Your task to perform on an android device: delete browsing data in the chrome app Image 0: 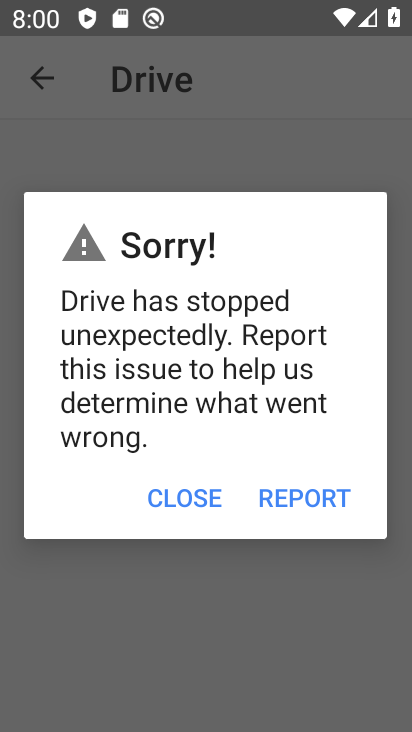
Step 0: press home button
Your task to perform on an android device: delete browsing data in the chrome app Image 1: 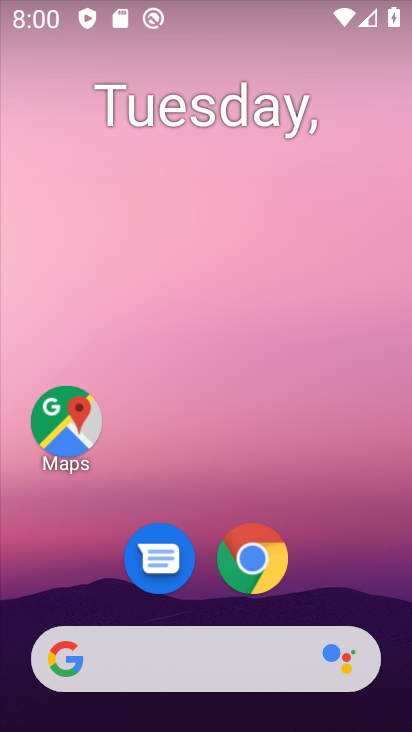
Step 1: click (244, 561)
Your task to perform on an android device: delete browsing data in the chrome app Image 2: 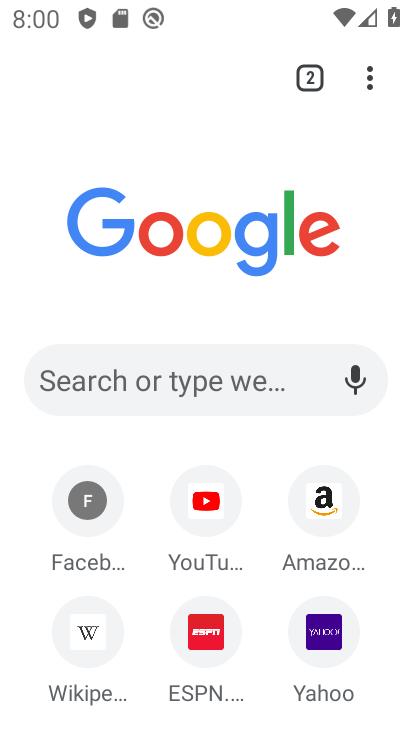
Step 2: click (369, 83)
Your task to perform on an android device: delete browsing data in the chrome app Image 3: 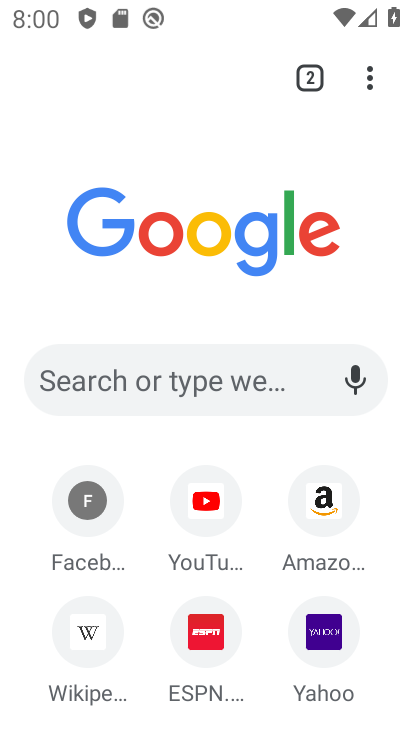
Step 3: drag from (362, 83) to (103, 450)
Your task to perform on an android device: delete browsing data in the chrome app Image 4: 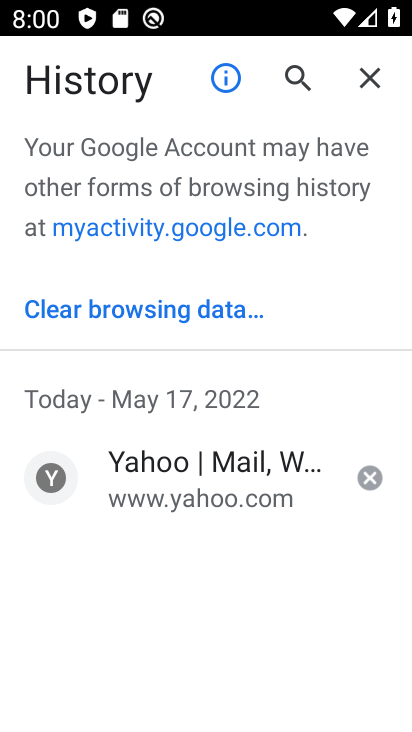
Step 4: click (108, 326)
Your task to perform on an android device: delete browsing data in the chrome app Image 5: 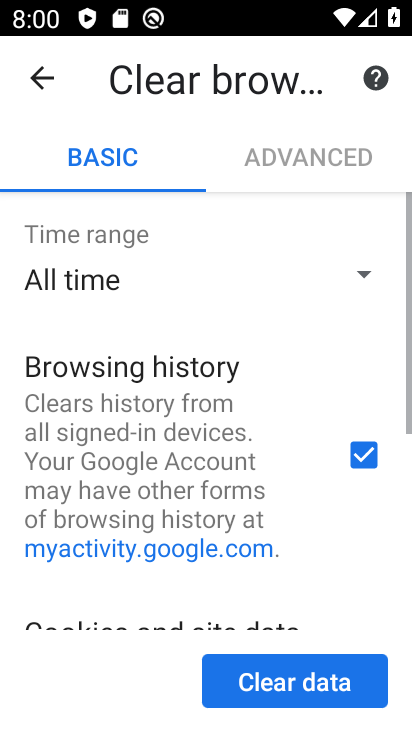
Step 5: click (286, 676)
Your task to perform on an android device: delete browsing data in the chrome app Image 6: 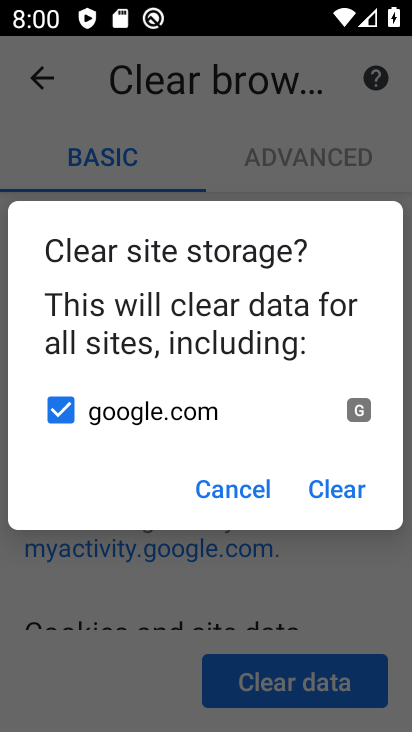
Step 6: click (331, 491)
Your task to perform on an android device: delete browsing data in the chrome app Image 7: 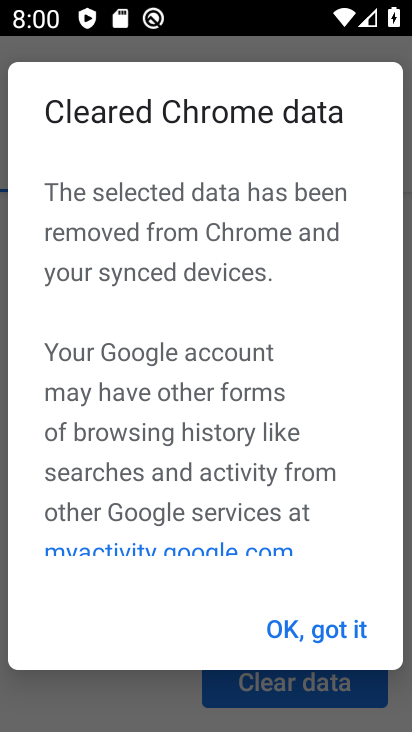
Step 7: click (326, 614)
Your task to perform on an android device: delete browsing data in the chrome app Image 8: 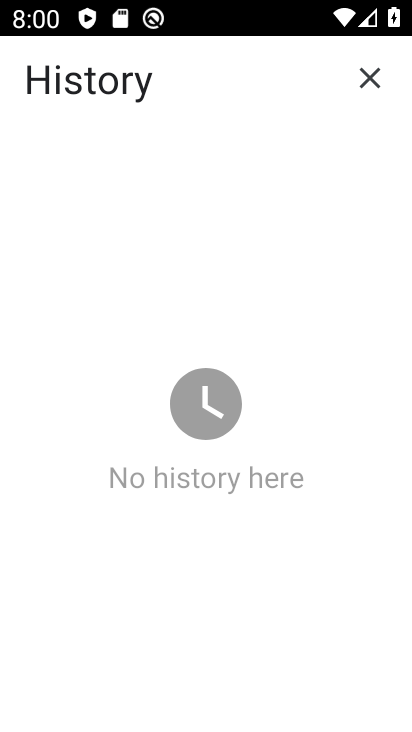
Step 8: task complete